Your task to perform on an android device: open app "TextNow: Call + Text Unlimited" (install if not already installed) Image 0: 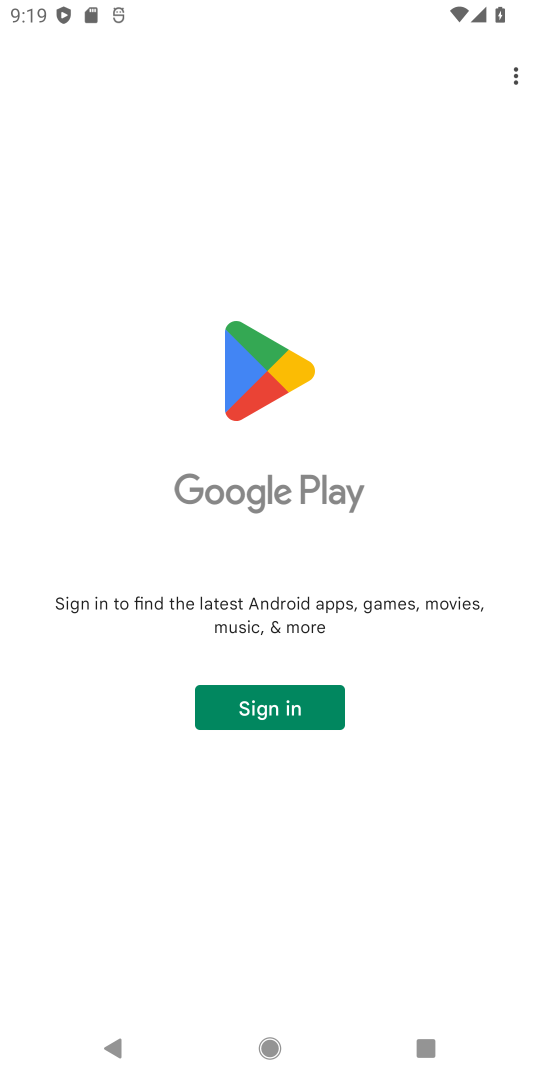
Step 0: click (243, 715)
Your task to perform on an android device: open app "TextNow: Call + Text Unlimited" (install if not already installed) Image 1: 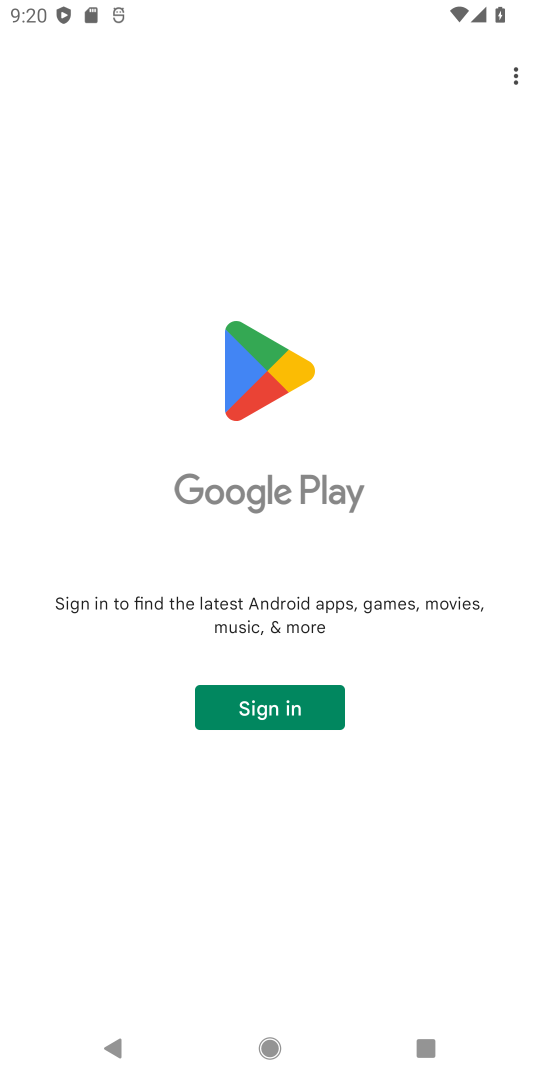
Step 1: click (243, 715)
Your task to perform on an android device: open app "TextNow: Call + Text Unlimited" (install if not already installed) Image 2: 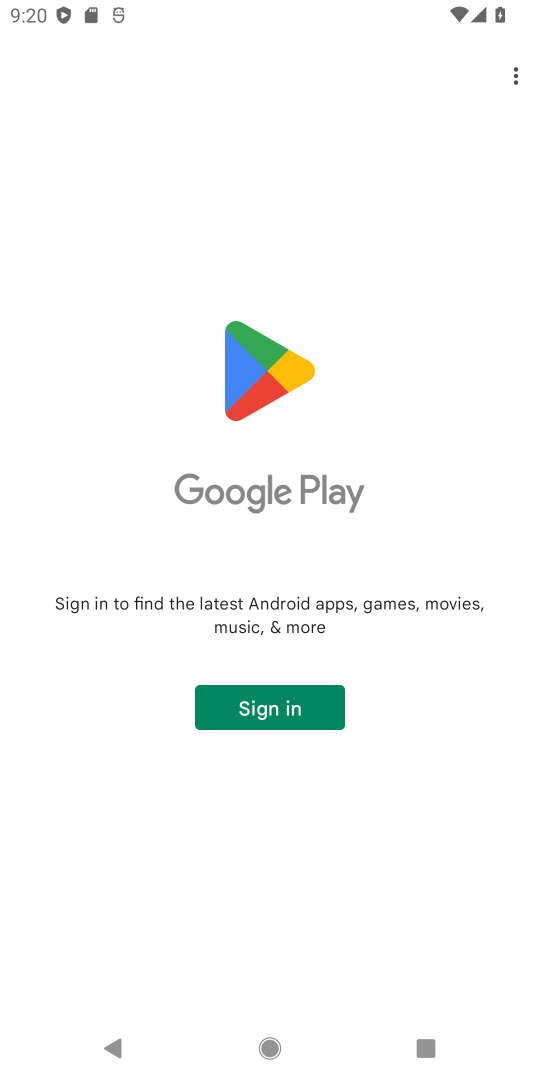
Step 2: click (243, 715)
Your task to perform on an android device: open app "TextNow: Call + Text Unlimited" (install if not already installed) Image 3: 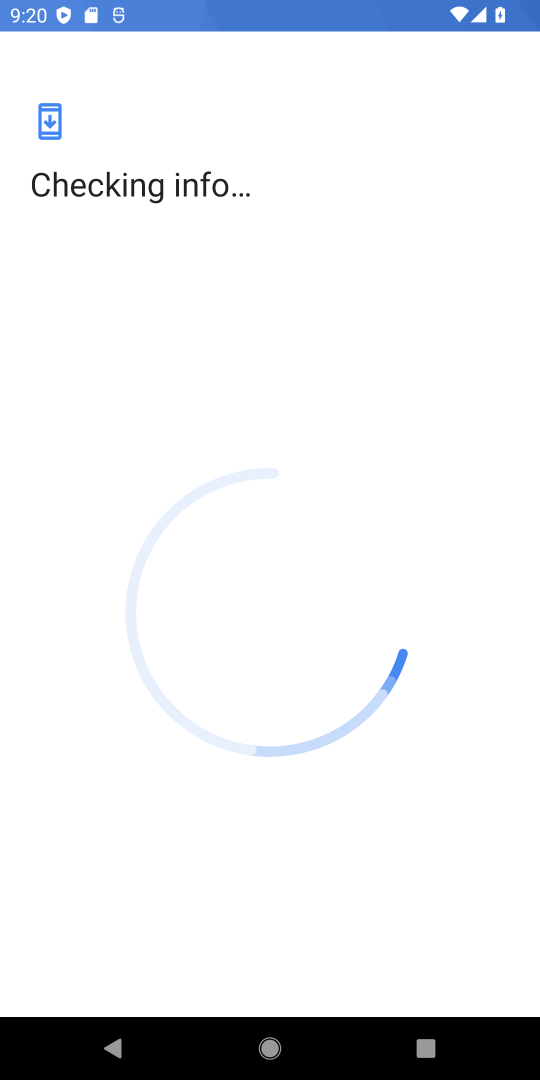
Step 3: task complete